Your task to perform on an android device: Set the phone to "Do not disturb". Image 0: 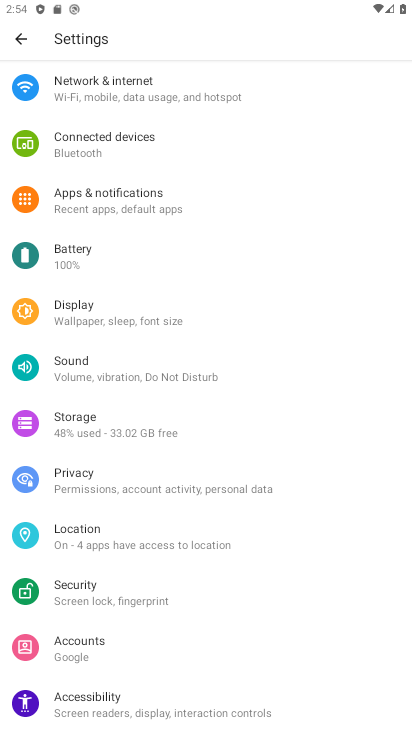
Step 0: click (110, 380)
Your task to perform on an android device: Set the phone to "Do not disturb". Image 1: 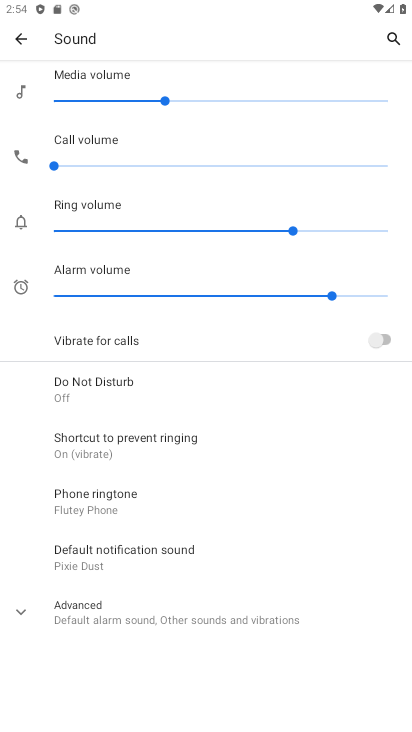
Step 1: click (121, 398)
Your task to perform on an android device: Set the phone to "Do not disturb". Image 2: 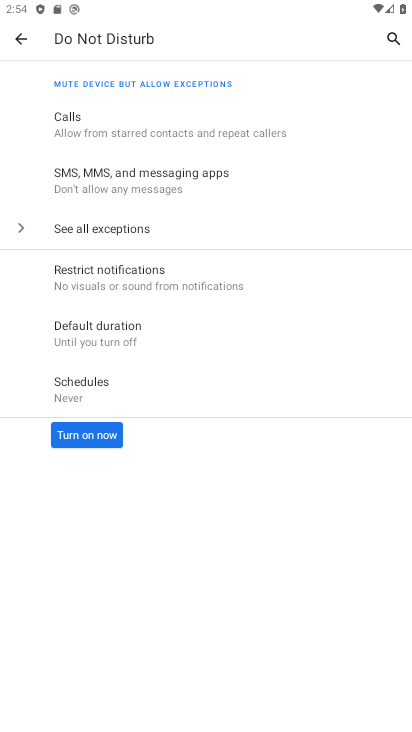
Step 2: click (78, 440)
Your task to perform on an android device: Set the phone to "Do not disturb". Image 3: 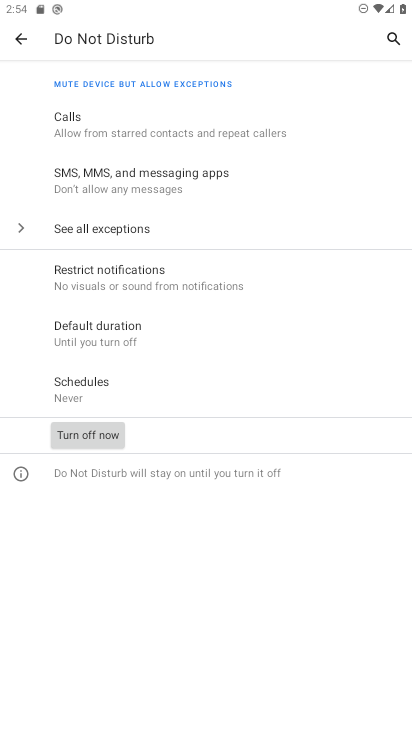
Step 3: task complete